Your task to perform on an android device: Open Android settings Image 0: 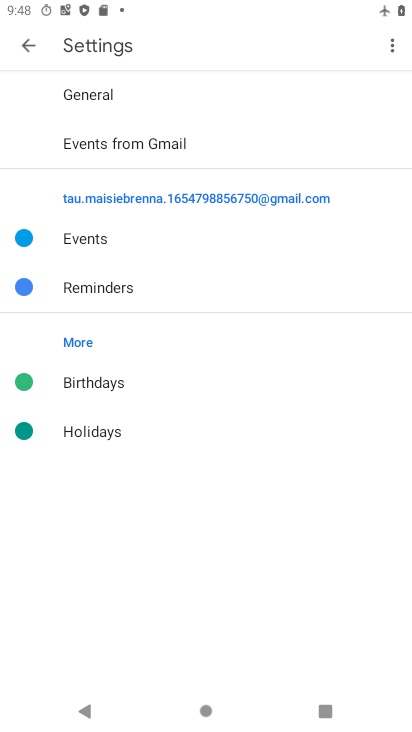
Step 0: press home button
Your task to perform on an android device: Open Android settings Image 1: 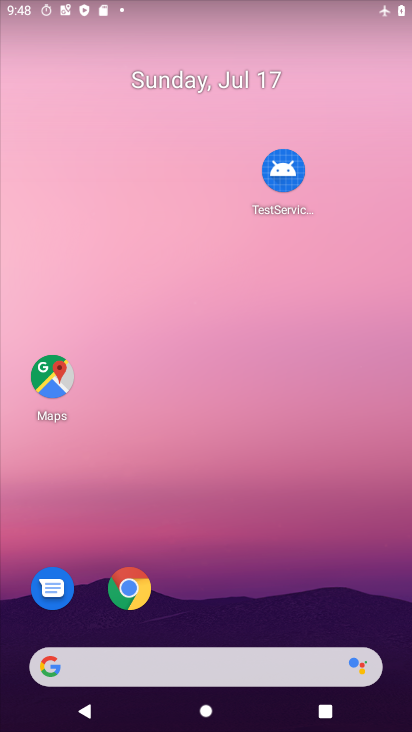
Step 1: drag from (233, 667) to (256, 225)
Your task to perform on an android device: Open Android settings Image 2: 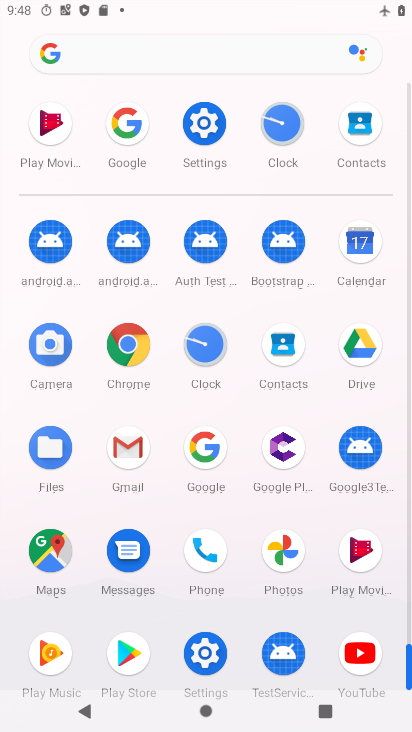
Step 2: click (219, 139)
Your task to perform on an android device: Open Android settings Image 3: 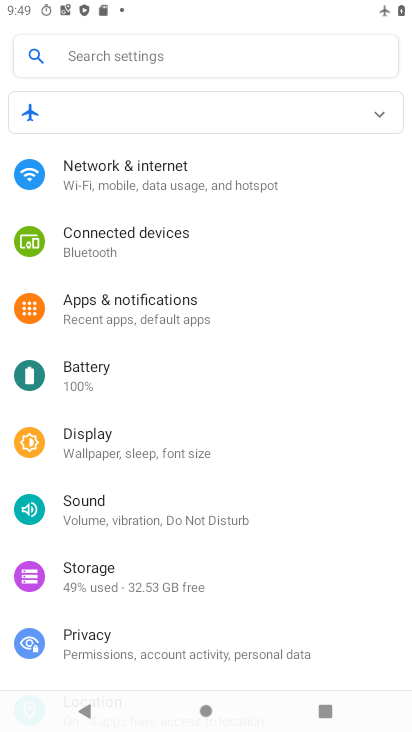
Step 3: drag from (130, 497) to (151, 174)
Your task to perform on an android device: Open Android settings Image 4: 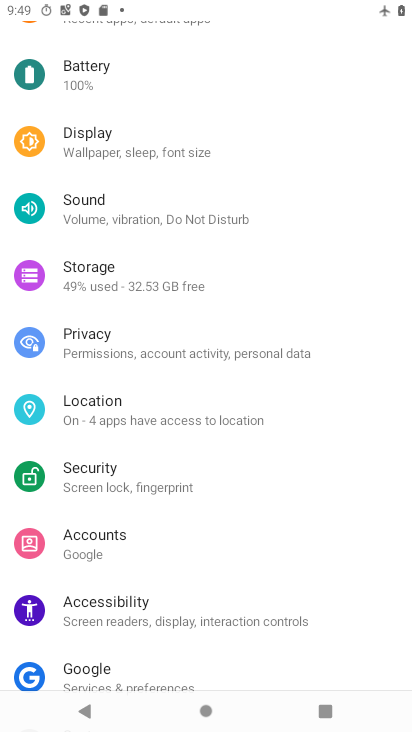
Step 4: drag from (161, 474) to (217, 195)
Your task to perform on an android device: Open Android settings Image 5: 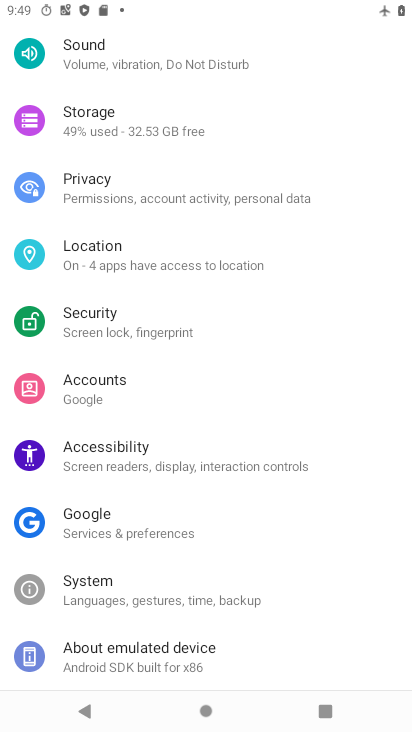
Step 5: drag from (167, 505) to (169, 273)
Your task to perform on an android device: Open Android settings Image 6: 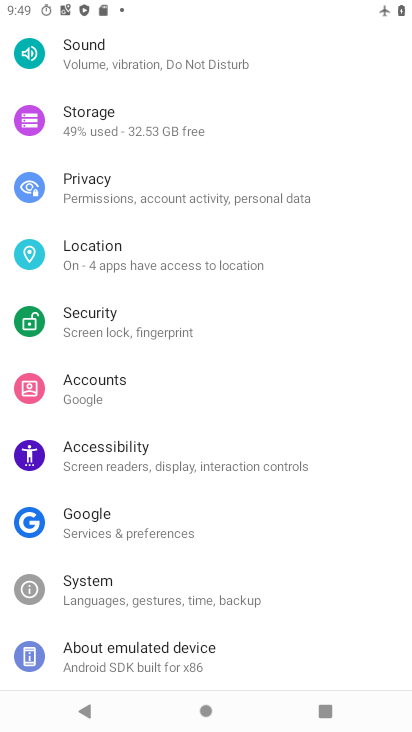
Step 6: click (126, 670)
Your task to perform on an android device: Open Android settings Image 7: 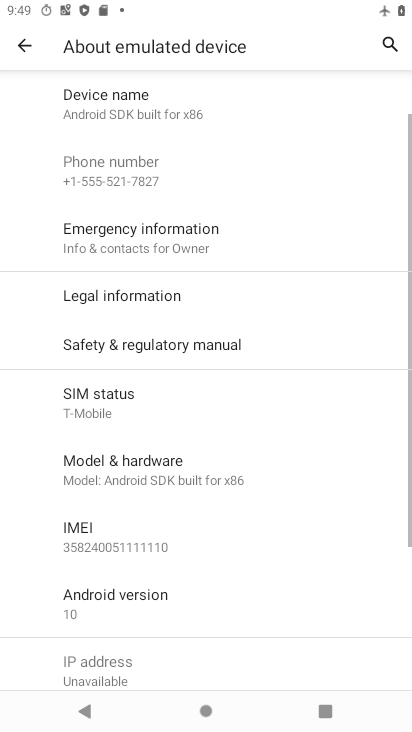
Step 7: click (139, 608)
Your task to perform on an android device: Open Android settings Image 8: 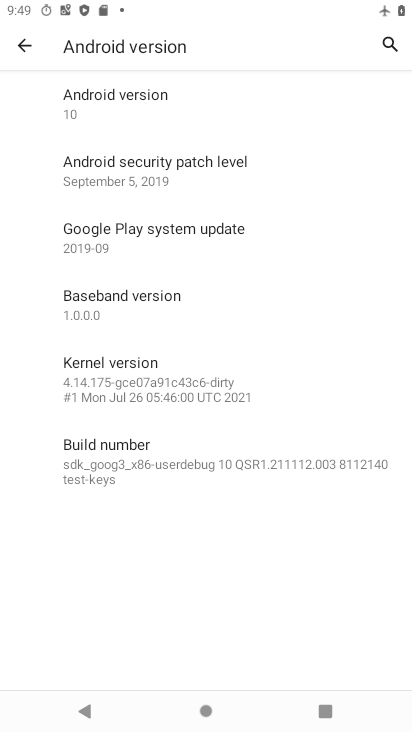
Step 8: task complete